Your task to perform on an android device: toggle data saver in the chrome app Image 0: 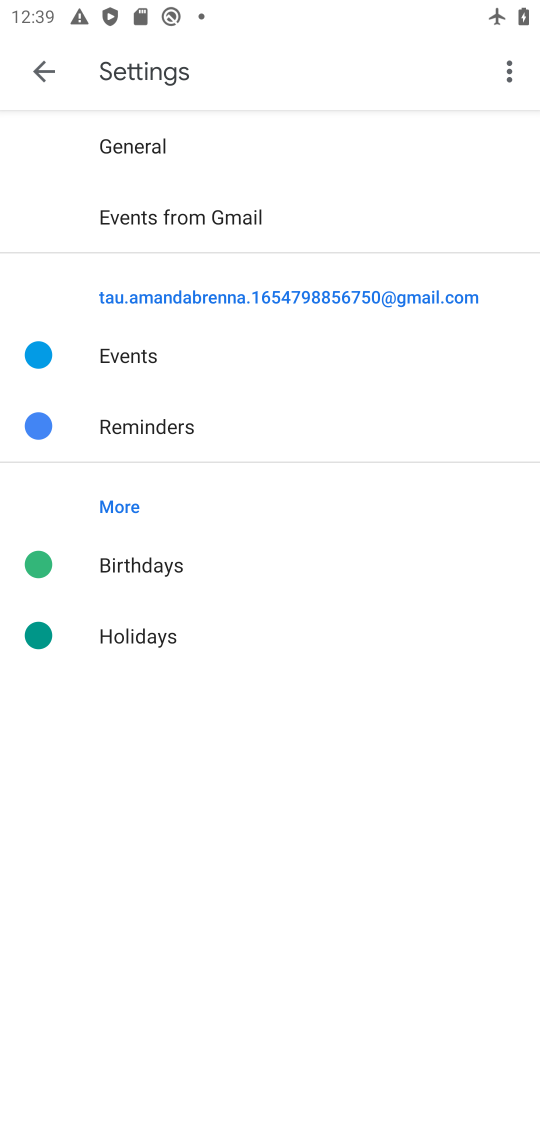
Step 0: press back button
Your task to perform on an android device: toggle data saver in the chrome app Image 1: 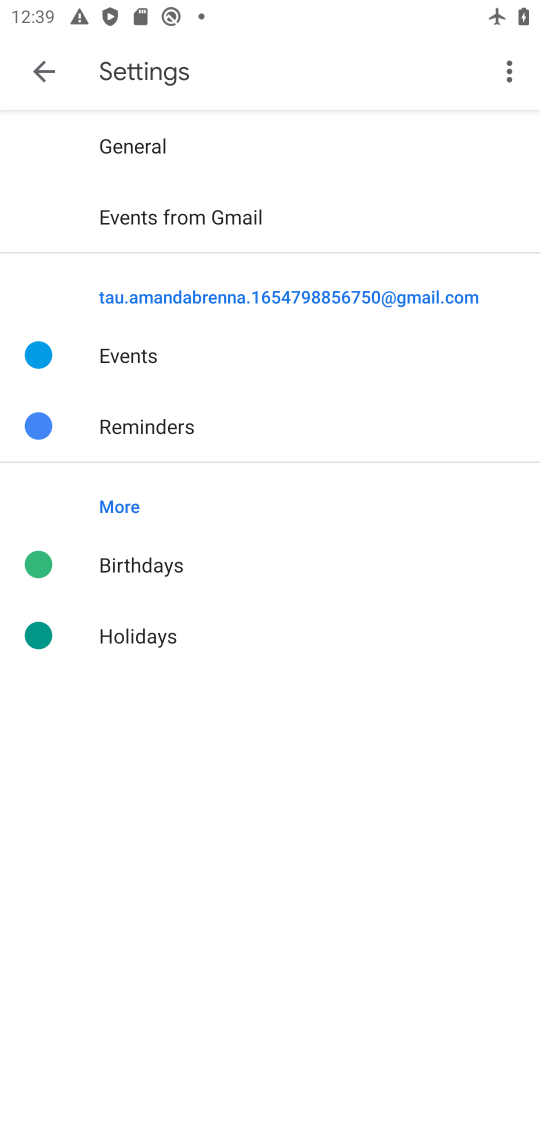
Step 1: press home button
Your task to perform on an android device: toggle data saver in the chrome app Image 2: 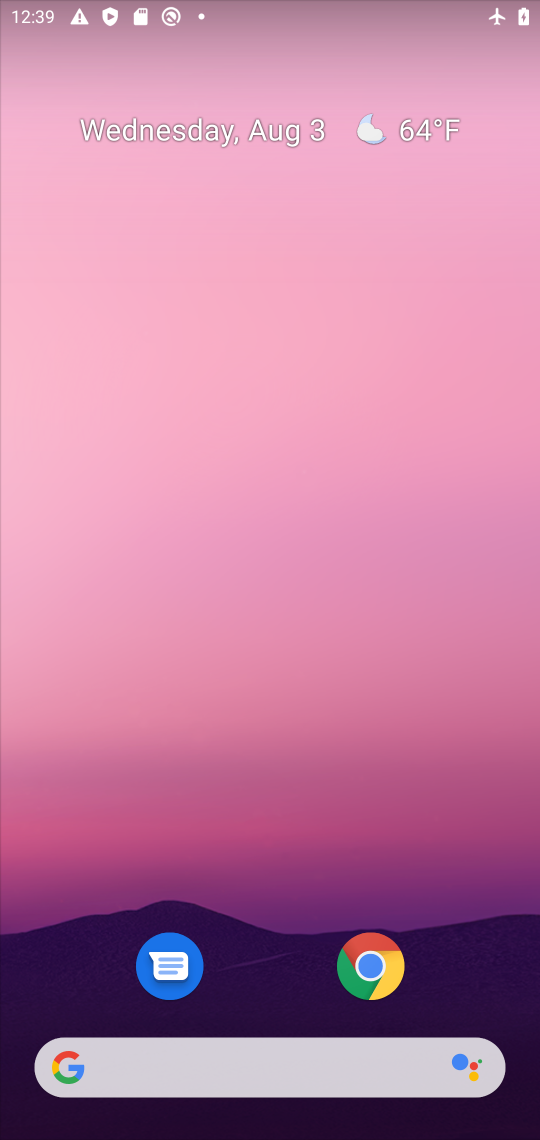
Step 2: click (346, 951)
Your task to perform on an android device: toggle data saver in the chrome app Image 3: 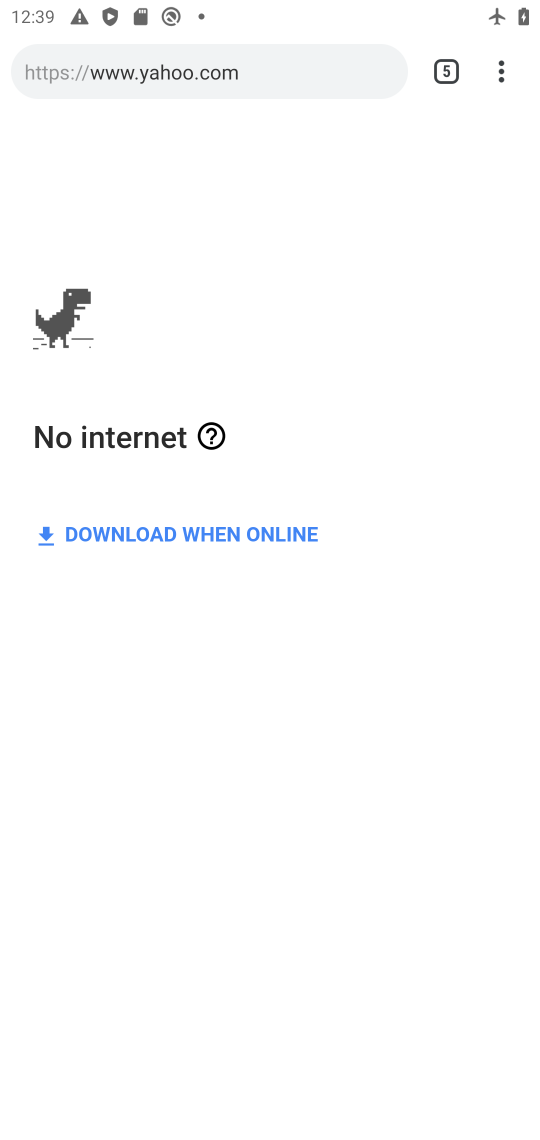
Step 3: click (506, 80)
Your task to perform on an android device: toggle data saver in the chrome app Image 4: 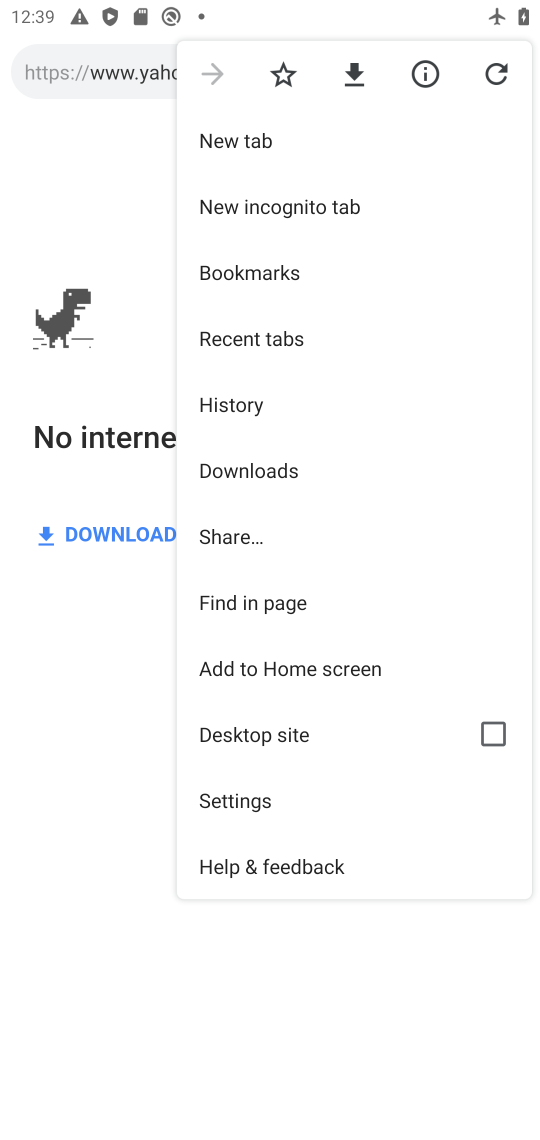
Step 4: click (258, 787)
Your task to perform on an android device: toggle data saver in the chrome app Image 5: 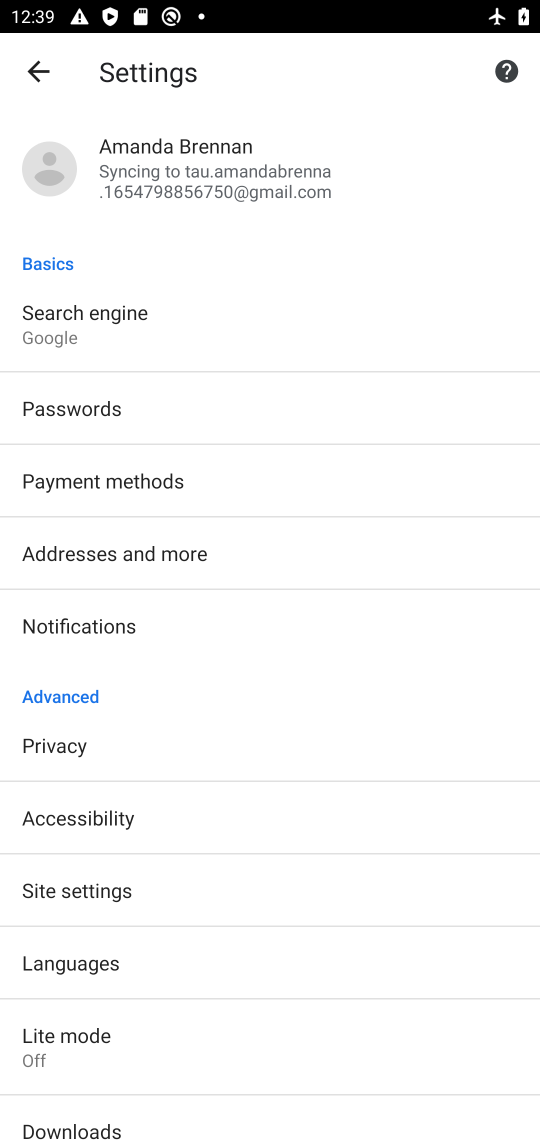
Step 5: click (137, 1031)
Your task to perform on an android device: toggle data saver in the chrome app Image 6: 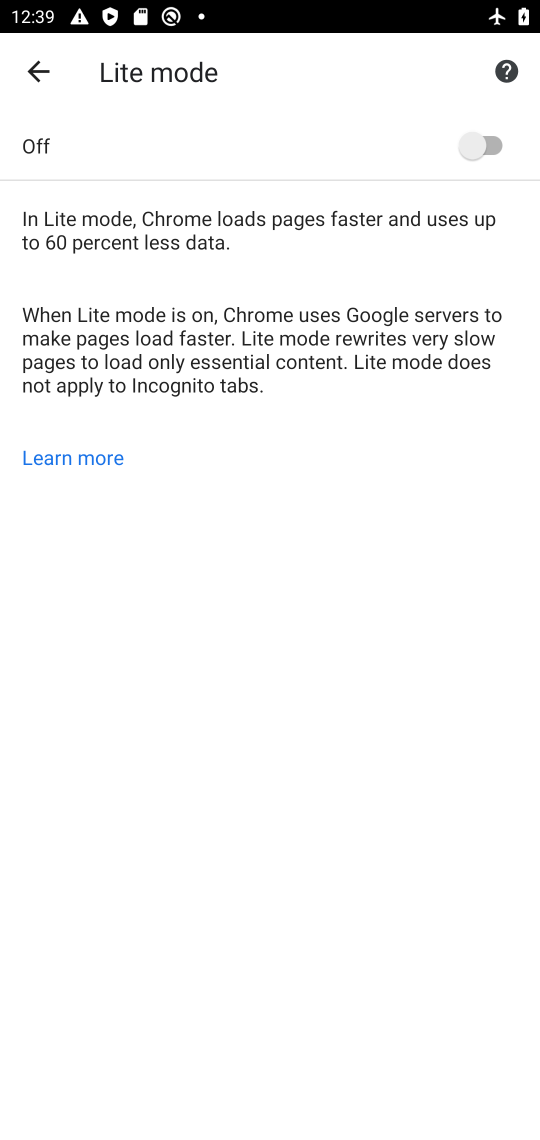
Step 6: click (491, 149)
Your task to perform on an android device: toggle data saver in the chrome app Image 7: 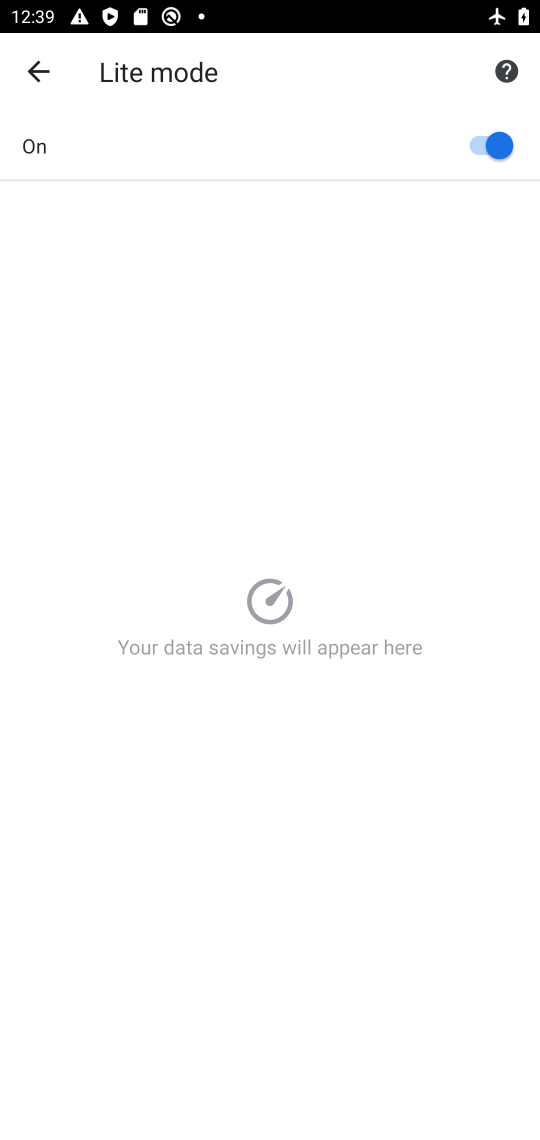
Step 7: task complete